Your task to perform on an android device: change the clock display to digital Image 0: 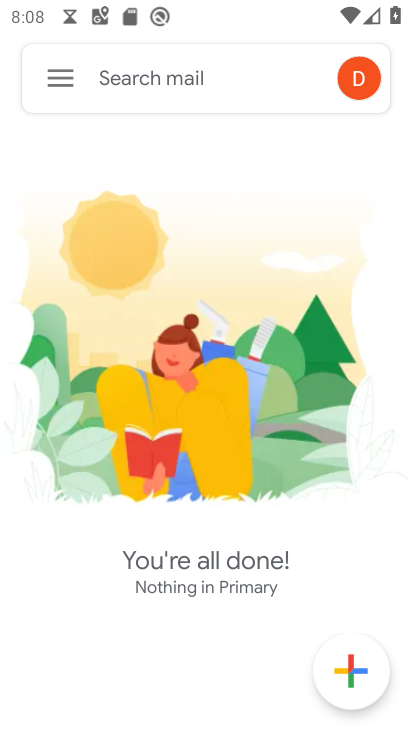
Step 0: press home button
Your task to perform on an android device: change the clock display to digital Image 1: 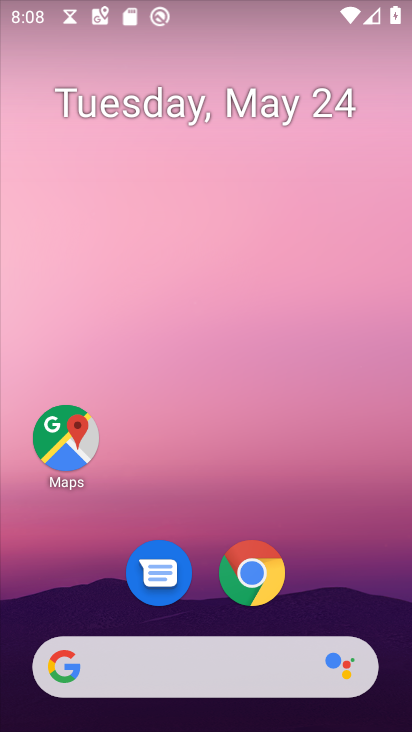
Step 1: drag from (327, 628) to (210, 44)
Your task to perform on an android device: change the clock display to digital Image 2: 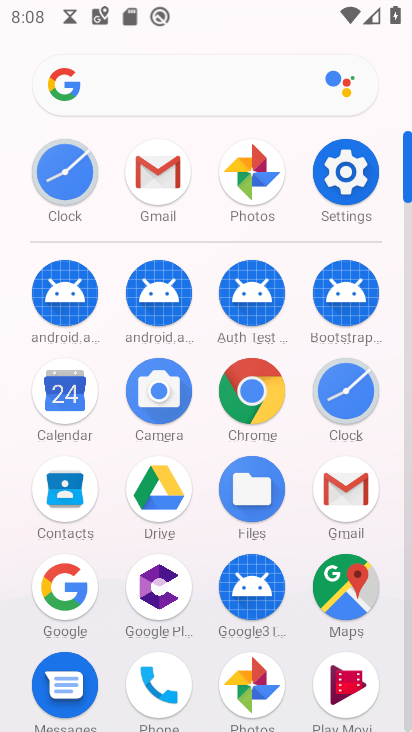
Step 2: click (355, 377)
Your task to perform on an android device: change the clock display to digital Image 3: 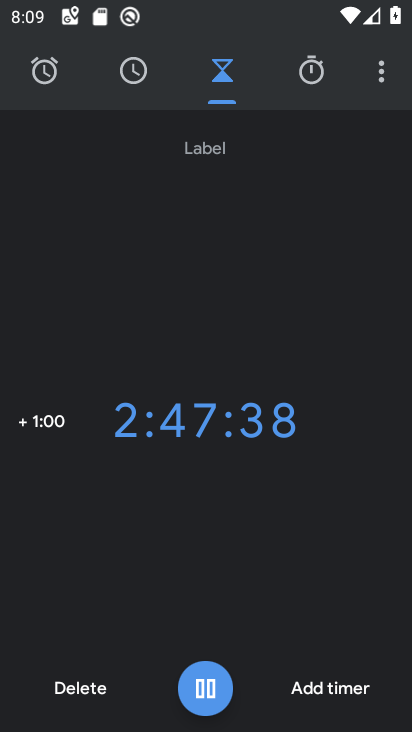
Step 3: click (386, 73)
Your task to perform on an android device: change the clock display to digital Image 4: 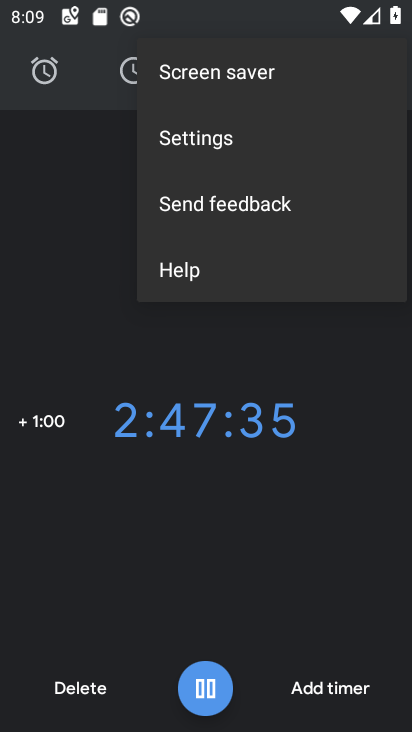
Step 4: click (224, 139)
Your task to perform on an android device: change the clock display to digital Image 5: 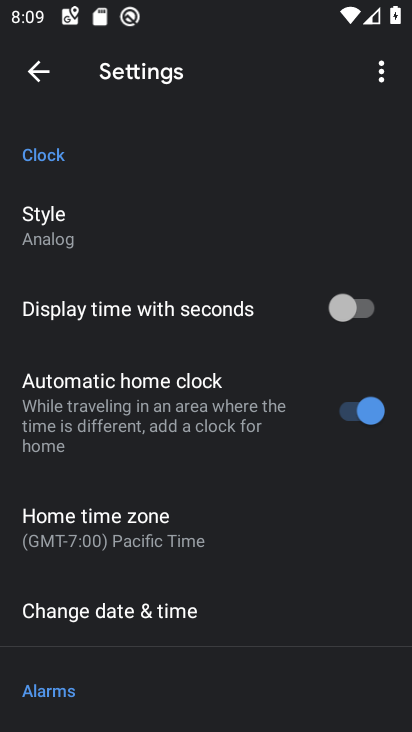
Step 5: click (53, 214)
Your task to perform on an android device: change the clock display to digital Image 6: 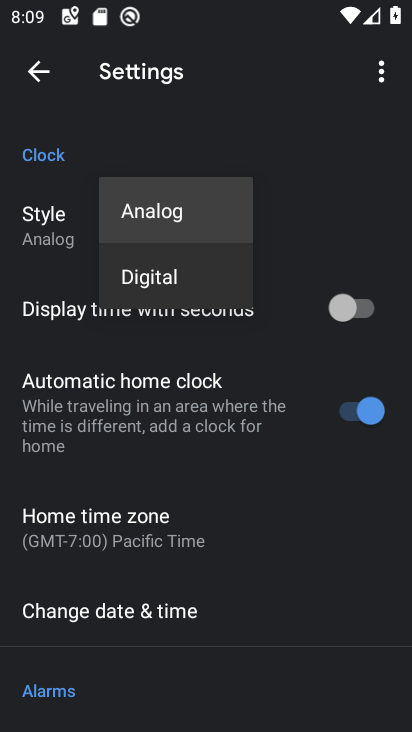
Step 6: click (159, 299)
Your task to perform on an android device: change the clock display to digital Image 7: 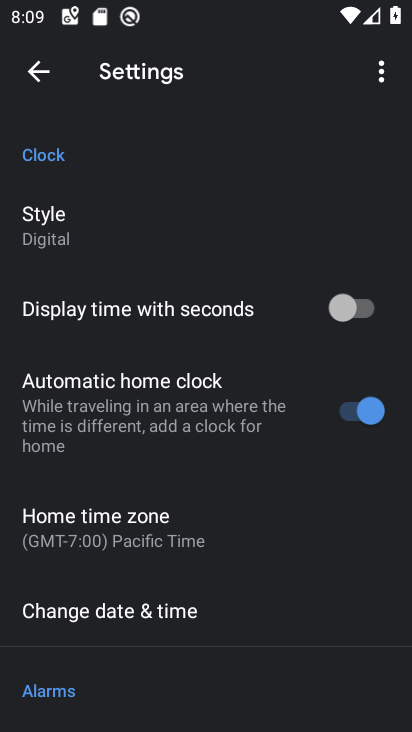
Step 7: task complete